Your task to perform on an android device: Open the phone app and click the voicemail tab. Image 0: 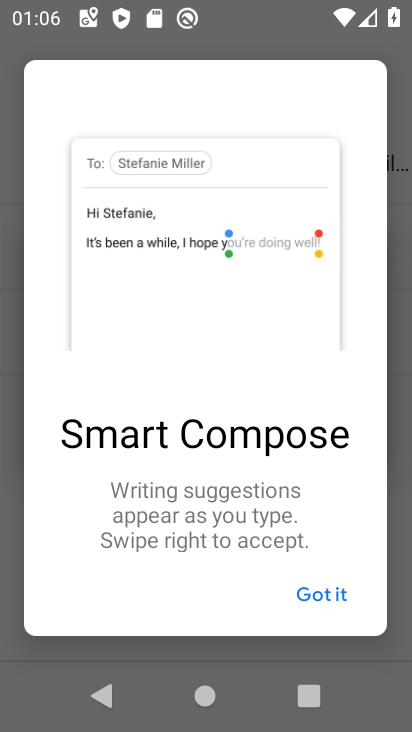
Step 0: press home button
Your task to perform on an android device: Open the phone app and click the voicemail tab. Image 1: 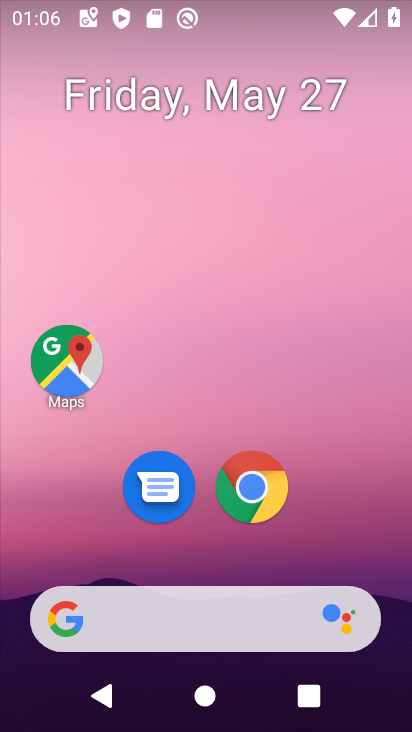
Step 1: drag from (159, 731) to (309, 123)
Your task to perform on an android device: Open the phone app and click the voicemail tab. Image 2: 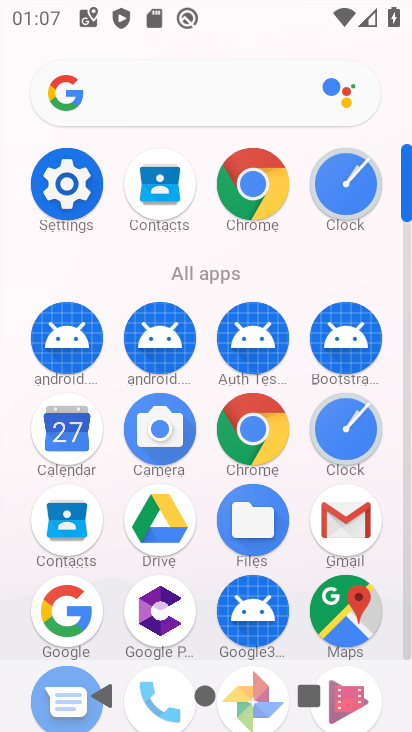
Step 2: drag from (115, 581) to (177, 173)
Your task to perform on an android device: Open the phone app and click the voicemail tab. Image 3: 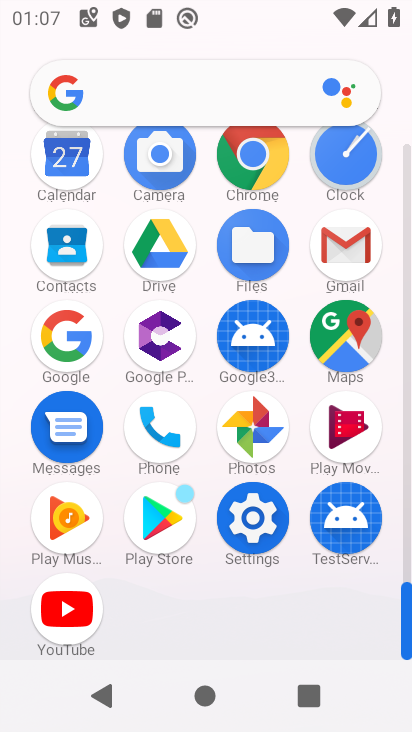
Step 3: click (167, 438)
Your task to perform on an android device: Open the phone app and click the voicemail tab. Image 4: 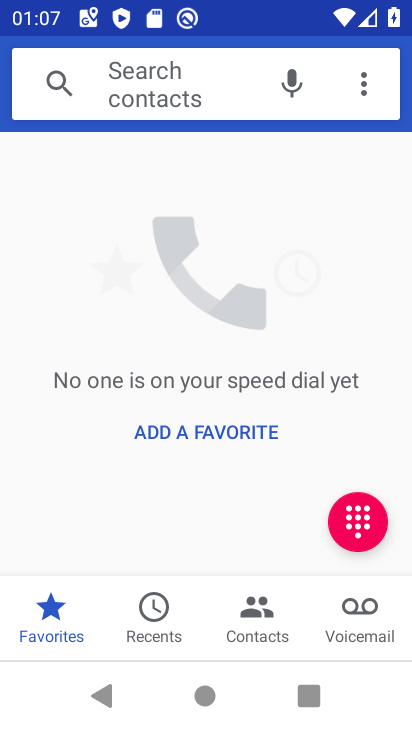
Step 4: click (374, 623)
Your task to perform on an android device: Open the phone app and click the voicemail tab. Image 5: 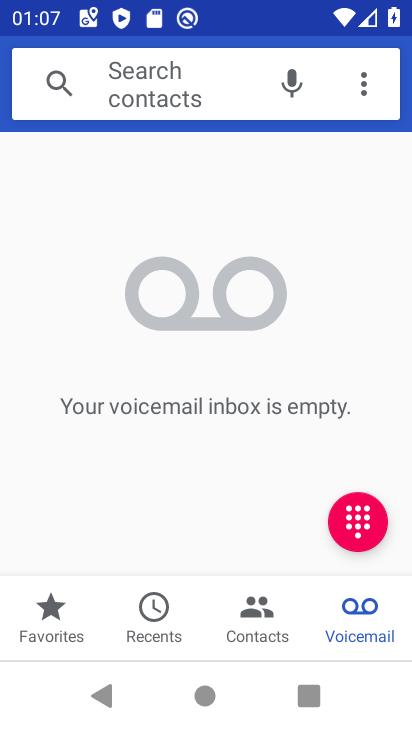
Step 5: task complete